Your task to perform on an android device: toggle pop-ups in chrome Image 0: 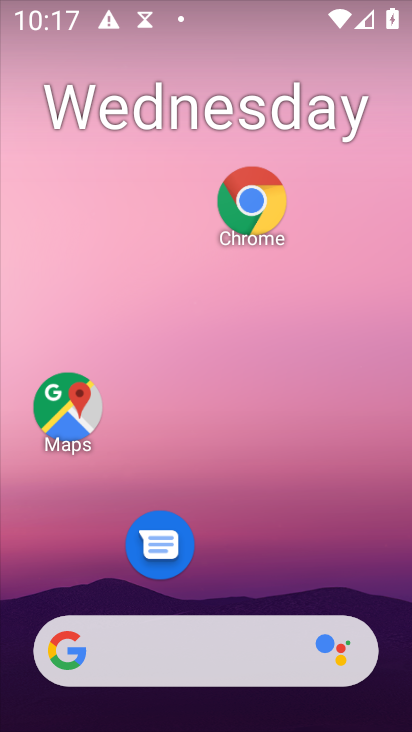
Step 0: click (244, 203)
Your task to perform on an android device: toggle pop-ups in chrome Image 1: 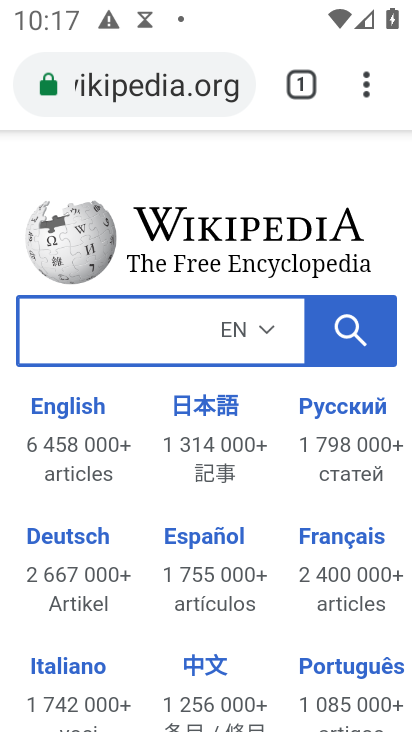
Step 1: click (370, 78)
Your task to perform on an android device: toggle pop-ups in chrome Image 2: 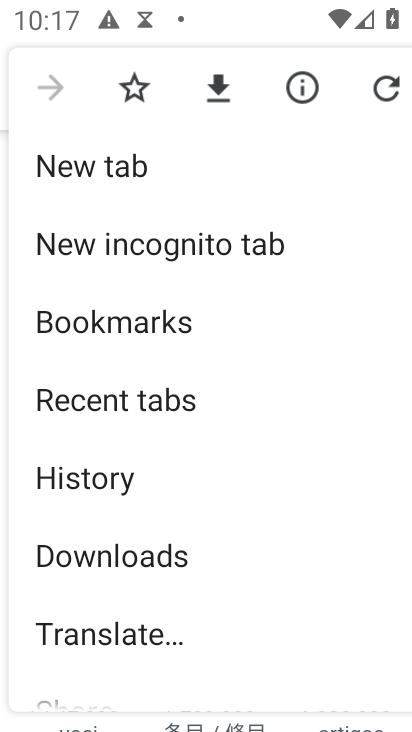
Step 2: drag from (90, 628) to (29, 219)
Your task to perform on an android device: toggle pop-ups in chrome Image 3: 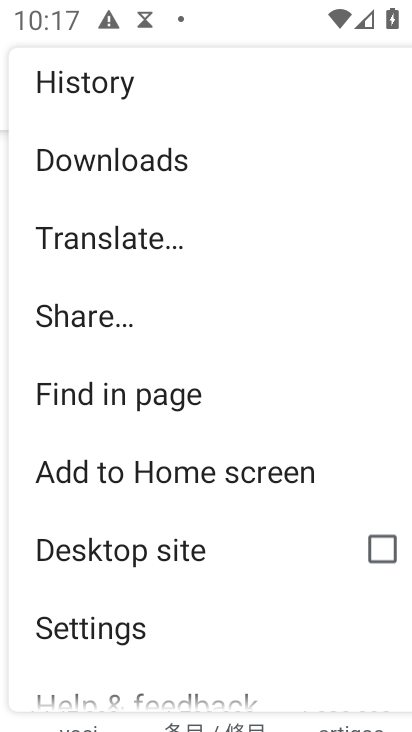
Step 3: click (66, 633)
Your task to perform on an android device: toggle pop-ups in chrome Image 4: 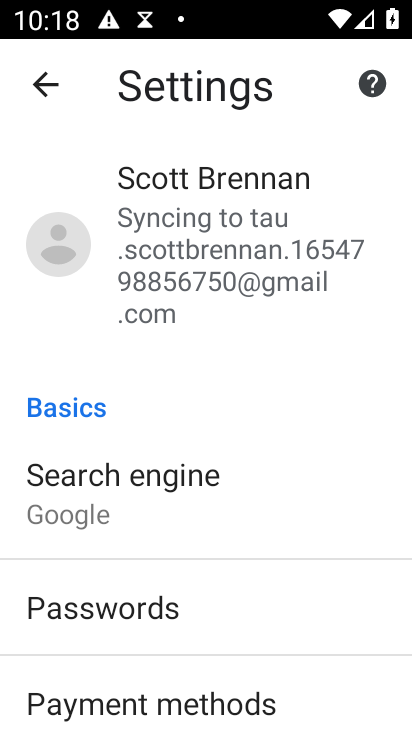
Step 4: drag from (162, 616) to (166, 328)
Your task to perform on an android device: toggle pop-ups in chrome Image 5: 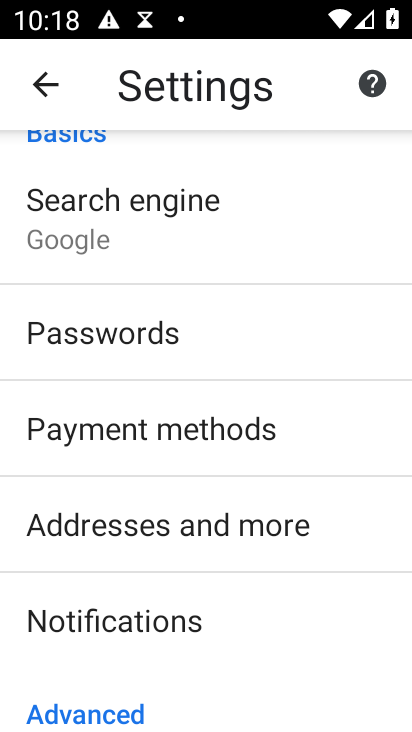
Step 5: drag from (166, 619) to (168, 289)
Your task to perform on an android device: toggle pop-ups in chrome Image 6: 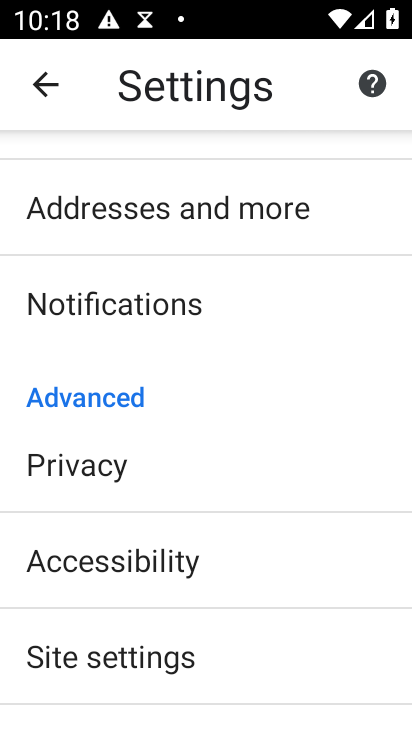
Step 6: click (180, 639)
Your task to perform on an android device: toggle pop-ups in chrome Image 7: 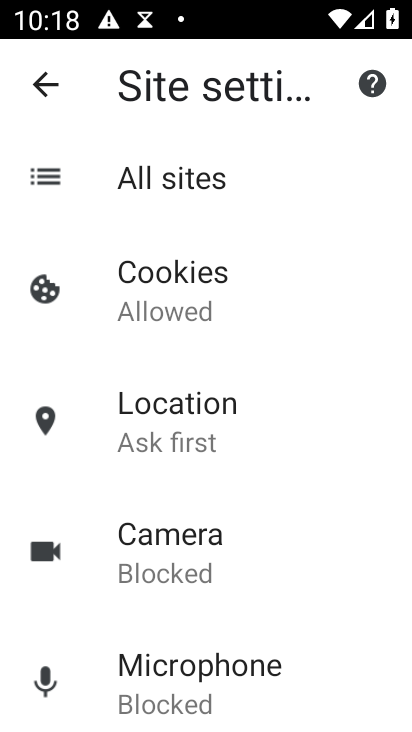
Step 7: drag from (189, 654) to (151, 268)
Your task to perform on an android device: toggle pop-ups in chrome Image 8: 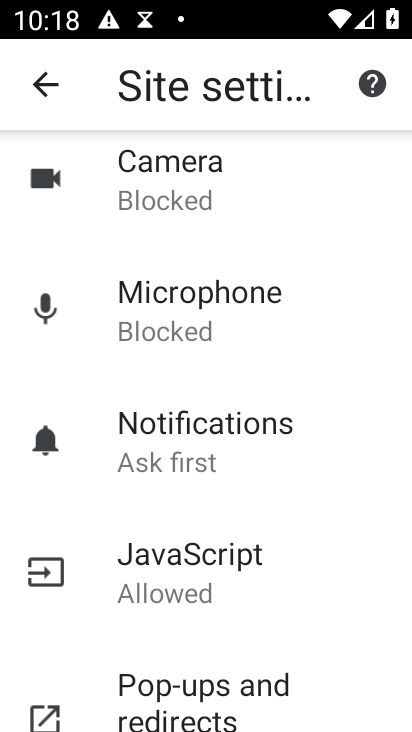
Step 8: click (195, 696)
Your task to perform on an android device: toggle pop-ups in chrome Image 9: 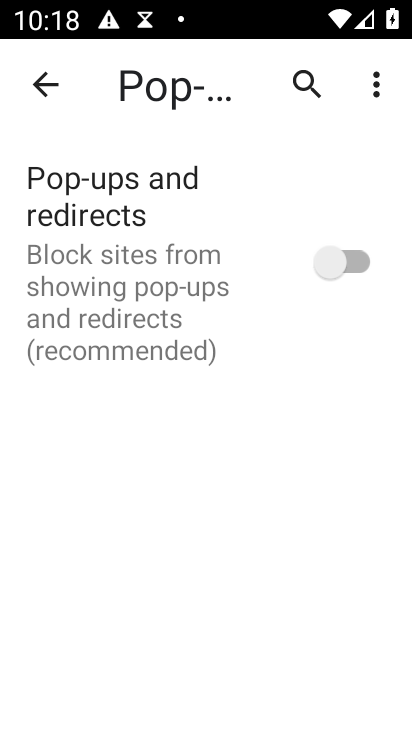
Step 9: click (336, 268)
Your task to perform on an android device: toggle pop-ups in chrome Image 10: 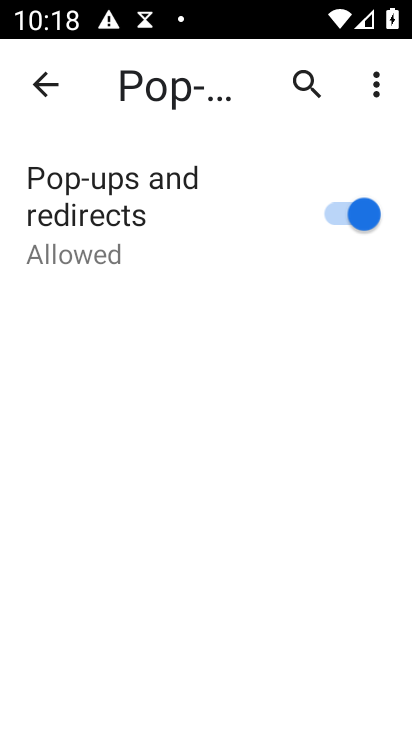
Step 10: task complete